Your task to perform on an android device: change your default location settings in chrome Image 0: 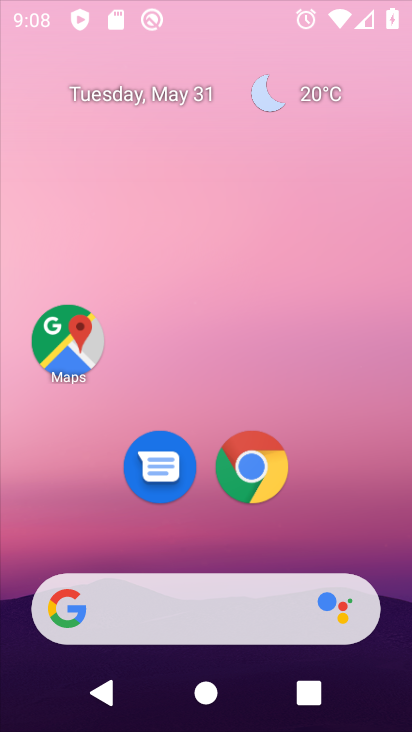
Step 0: drag from (405, 275) to (296, 5)
Your task to perform on an android device: change your default location settings in chrome Image 1: 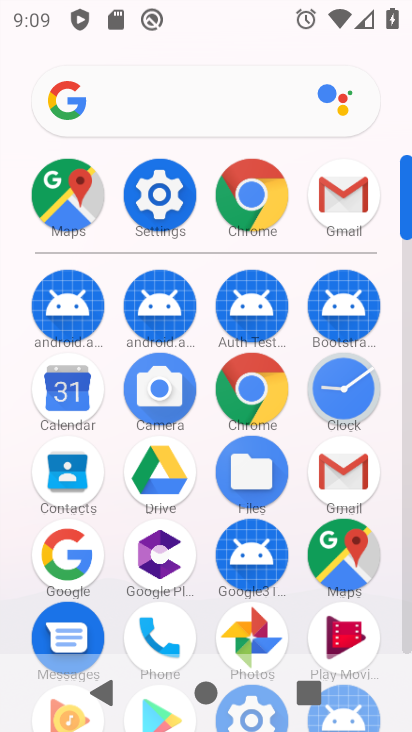
Step 1: click (258, 378)
Your task to perform on an android device: change your default location settings in chrome Image 2: 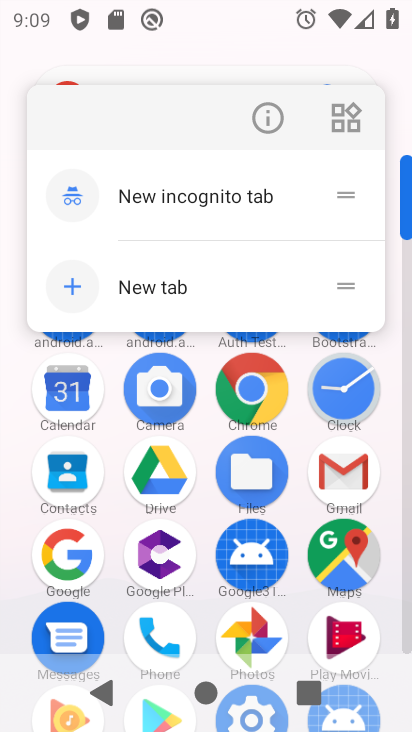
Step 2: click (265, 121)
Your task to perform on an android device: change your default location settings in chrome Image 3: 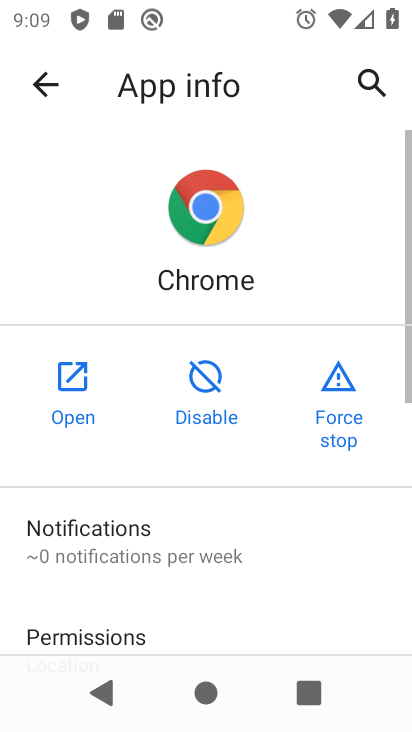
Step 3: click (64, 410)
Your task to perform on an android device: change your default location settings in chrome Image 4: 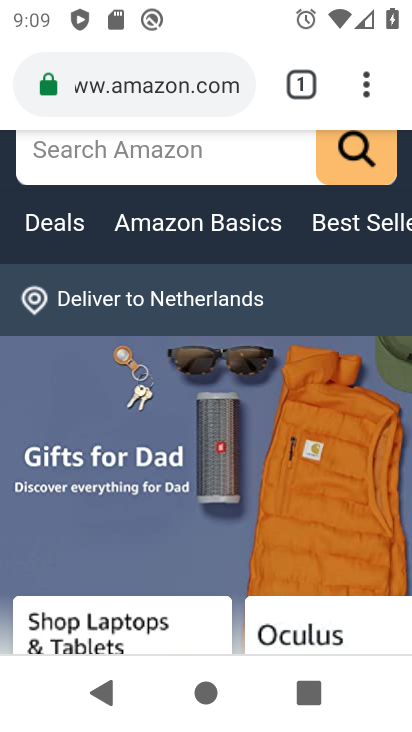
Step 4: click (367, 81)
Your task to perform on an android device: change your default location settings in chrome Image 5: 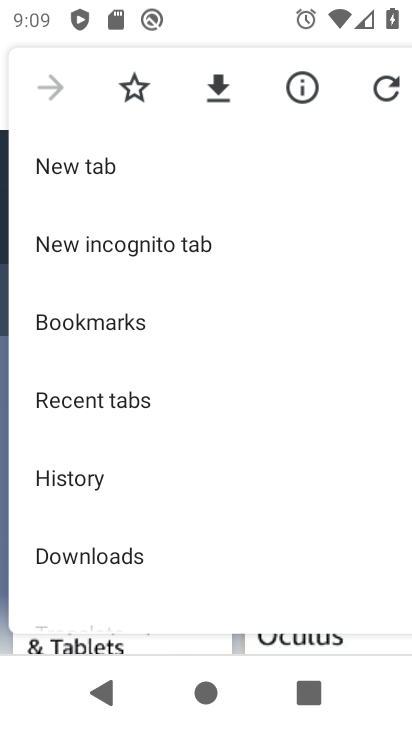
Step 5: drag from (140, 557) to (408, 197)
Your task to perform on an android device: change your default location settings in chrome Image 6: 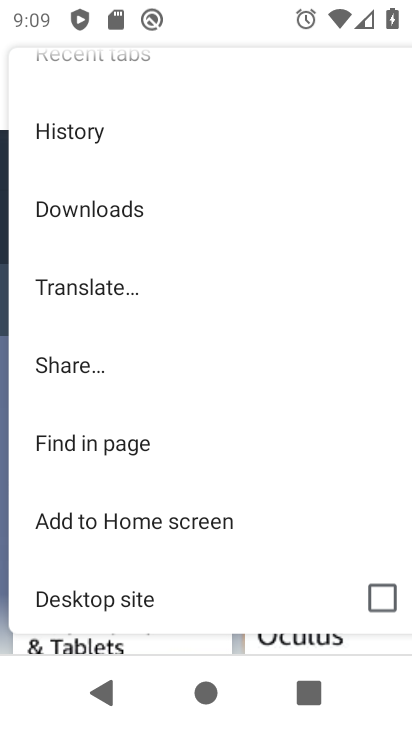
Step 6: drag from (188, 504) to (303, 188)
Your task to perform on an android device: change your default location settings in chrome Image 7: 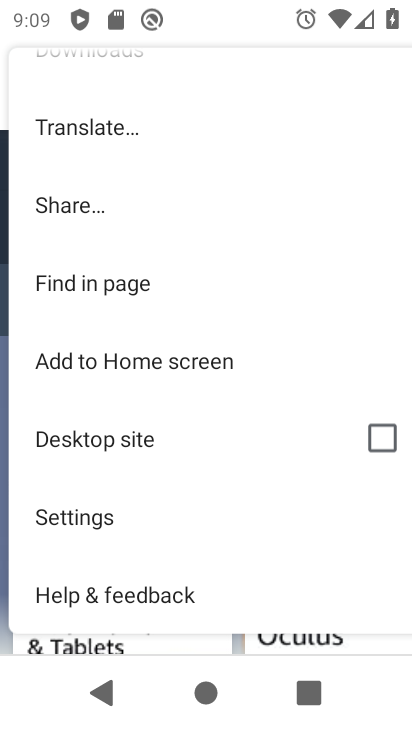
Step 7: click (96, 521)
Your task to perform on an android device: change your default location settings in chrome Image 8: 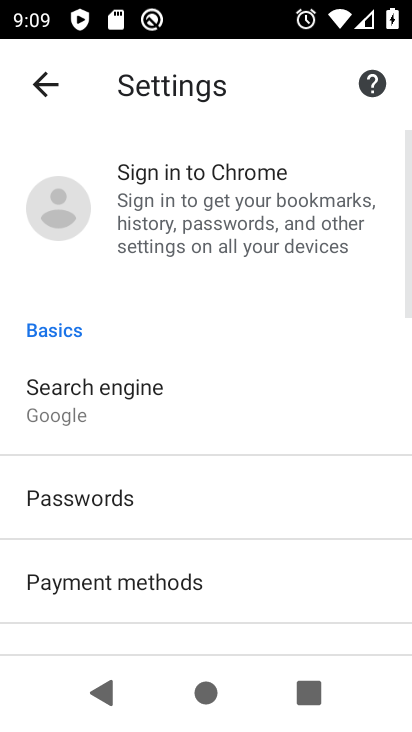
Step 8: drag from (208, 552) to (338, 82)
Your task to perform on an android device: change your default location settings in chrome Image 9: 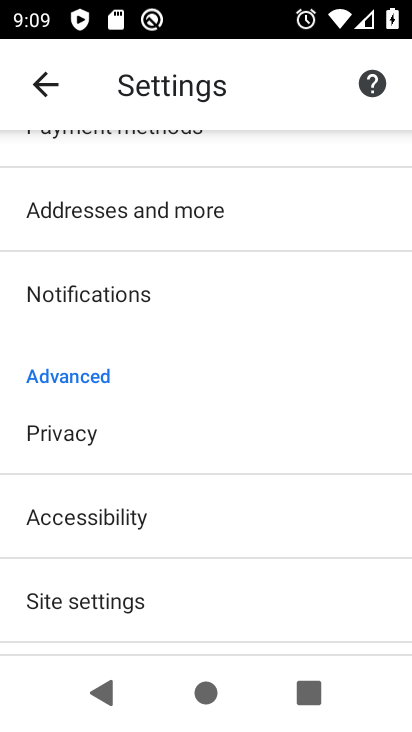
Step 9: click (156, 591)
Your task to perform on an android device: change your default location settings in chrome Image 10: 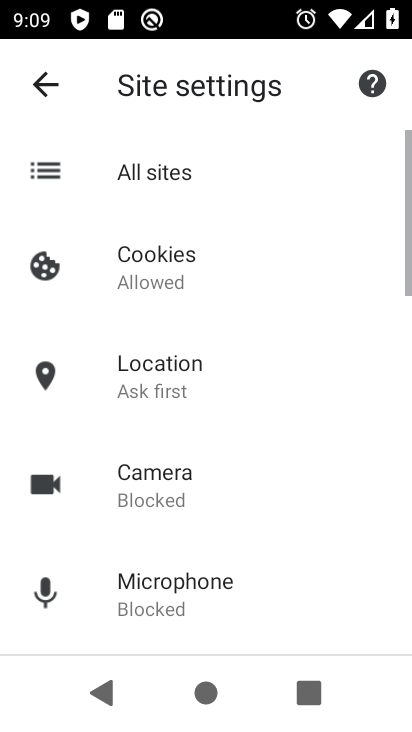
Step 10: drag from (156, 571) to (230, 337)
Your task to perform on an android device: change your default location settings in chrome Image 11: 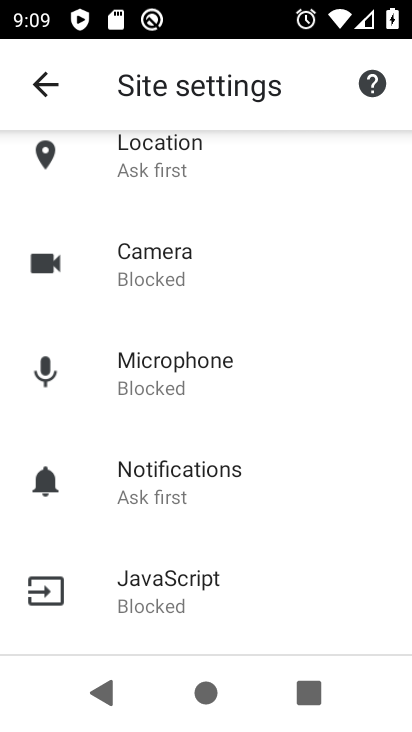
Step 11: click (193, 169)
Your task to perform on an android device: change your default location settings in chrome Image 12: 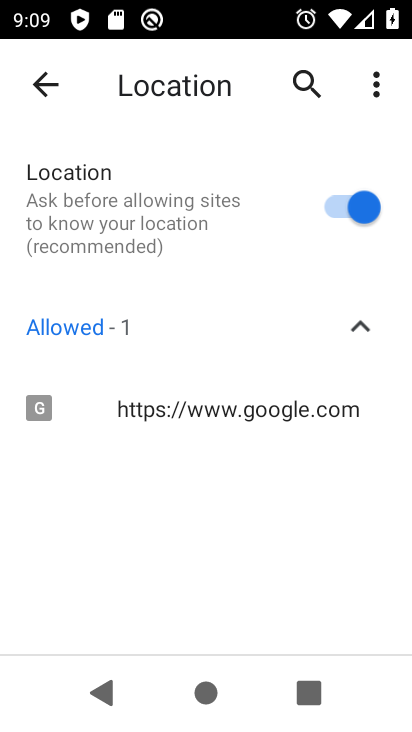
Step 12: drag from (145, 497) to (242, 262)
Your task to perform on an android device: change your default location settings in chrome Image 13: 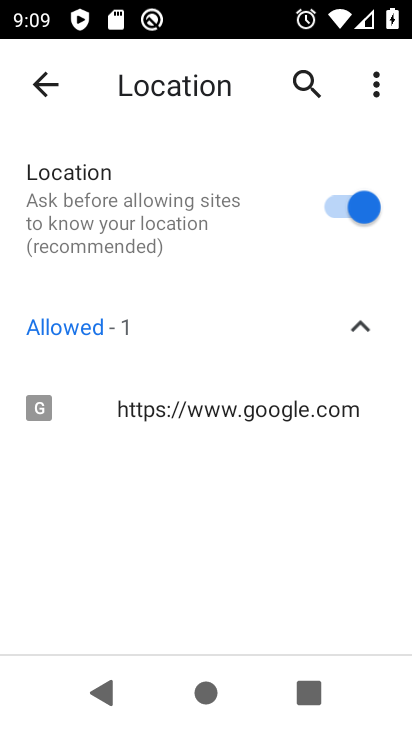
Step 13: drag from (219, 614) to (299, 312)
Your task to perform on an android device: change your default location settings in chrome Image 14: 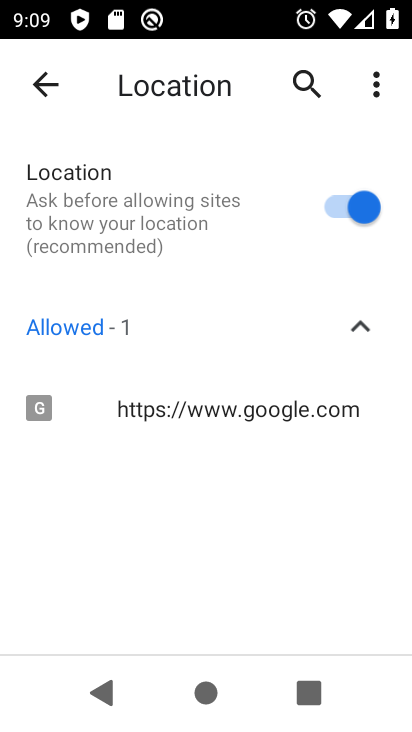
Step 14: click (355, 210)
Your task to perform on an android device: change your default location settings in chrome Image 15: 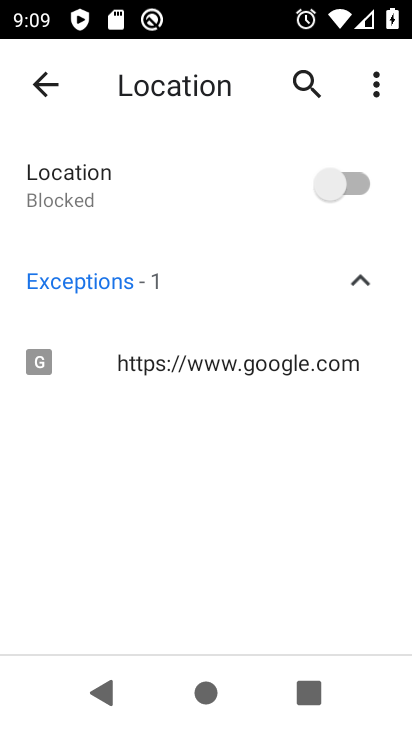
Step 15: task complete